Your task to perform on an android device: toggle notifications settings in the gmail app Image 0: 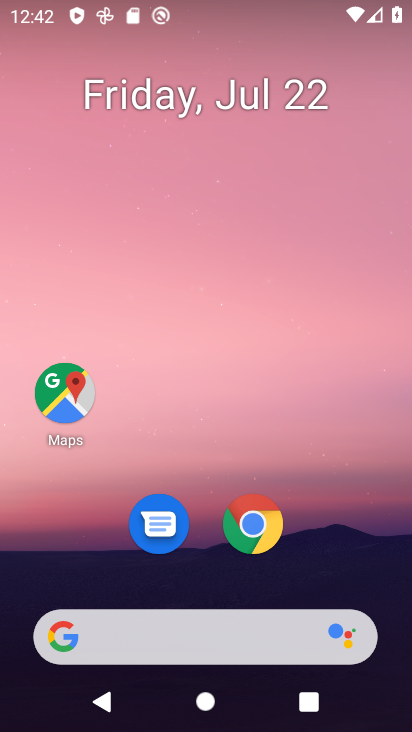
Step 0: press home button
Your task to perform on an android device: toggle notifications settings in the gmail app Image 1: 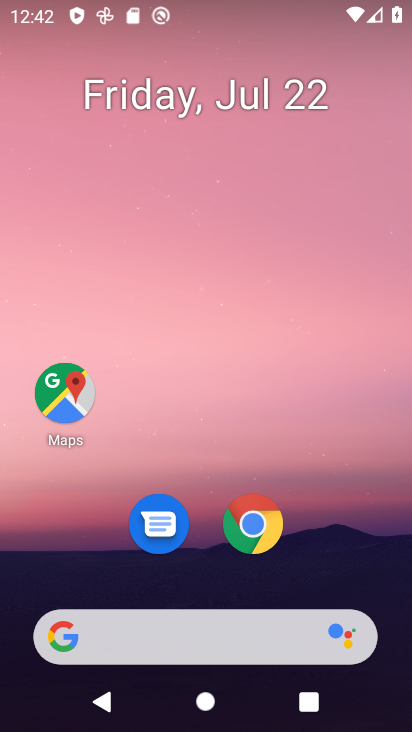
Step 1: drag from (176, 645) to (350, 1)
Your task to perform on an android device: toggle notifications settings in the gmail app Image 2: 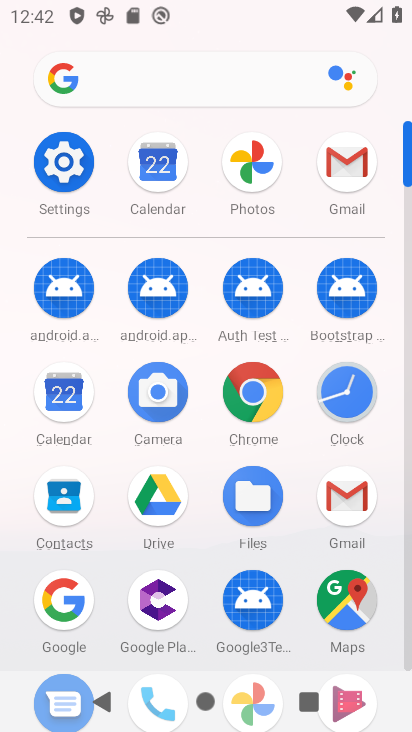
Step 2: click (350, 160)
Your task to perform on an android device: toggle notifications settings in the gmail app Image 3: 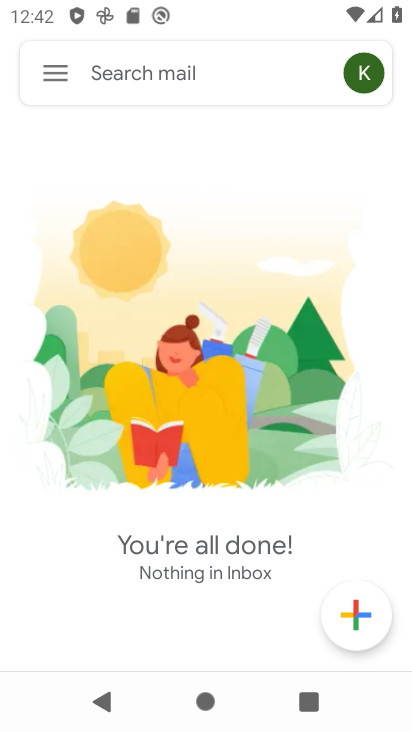
Step 3: click (57, 71)
Your task to perform on an android device: toggle notifications settings in the gmail app Image 4: 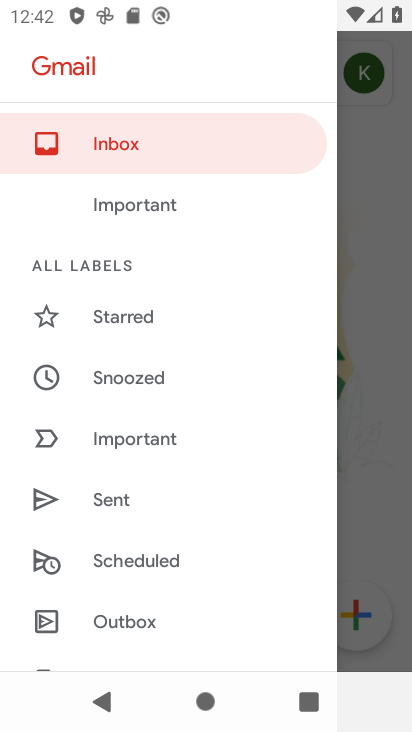
Step 4: drag from (208, 589) to (311, 176)
Your task to perform on an android device: toggle notifications settings in the gmail app Image 5: 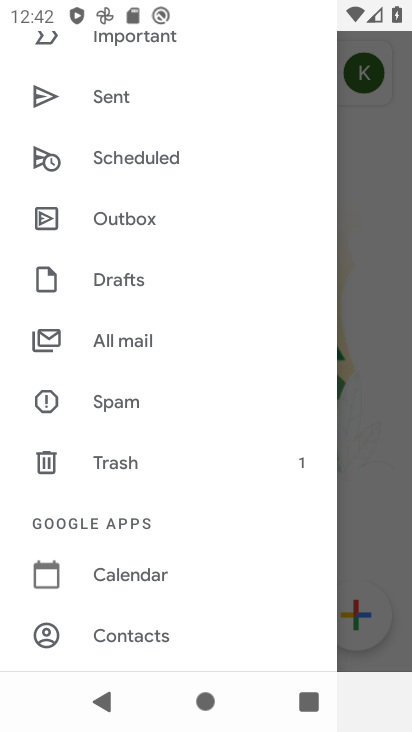
Step 5: drag from (202, 587) to (279, 168)
Your task to perform on an android device: toggle notifications settings in the gmail app Image 6: 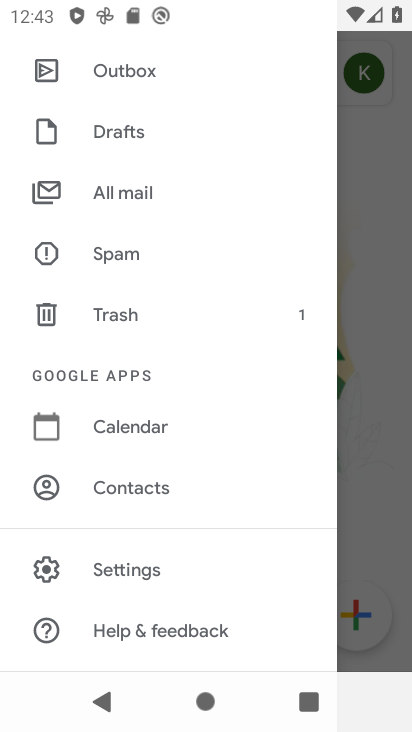
Step 6: click (143, 573)
Your task to perform on an android device: toggle notifications settings in the gmail app Image 7: 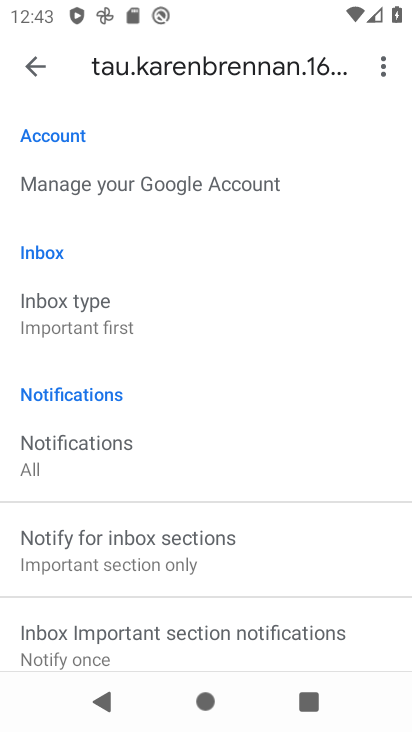
Step 7: click (55, 476)
Your task to perform on an android device: toggle notifications settings in the gmail app Image 8: 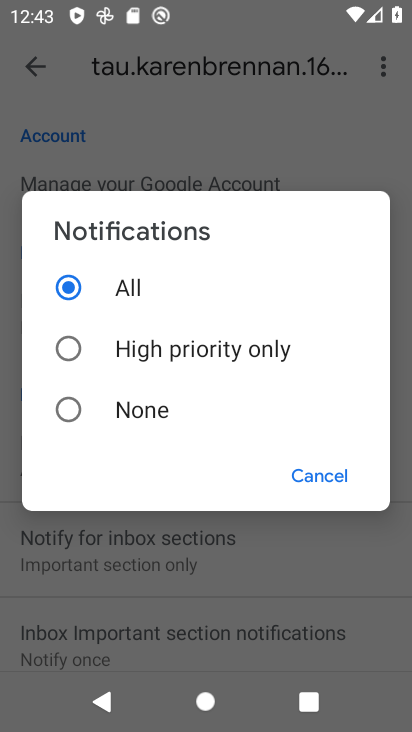
Step 8: click (70, 403)
Your task to perform on an android device: toggle notifications settings in the gmail app Image 9: 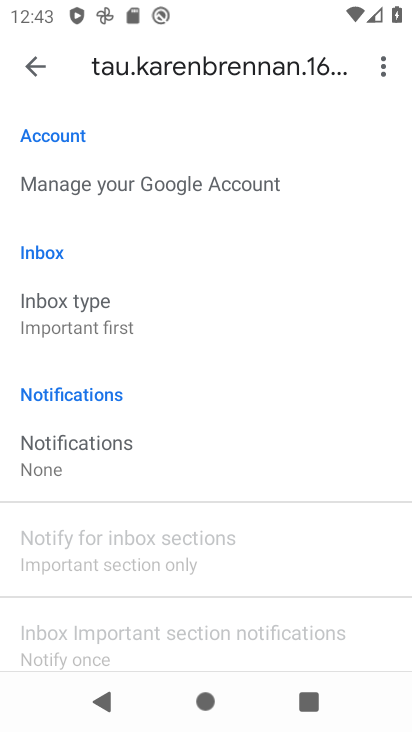
Step 9: task complete